Your task to perform on an android device: change text size in settings app Image 0: 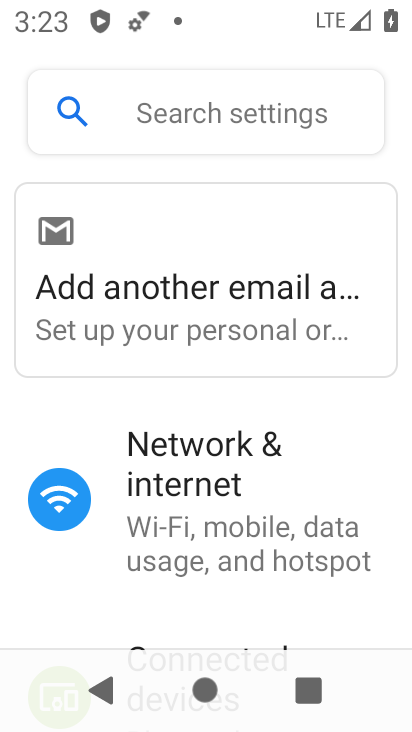
Step 0: drag from (227, 602) to (321, 164)
Your task to perform on an android device: change text size in settings app Image 1: 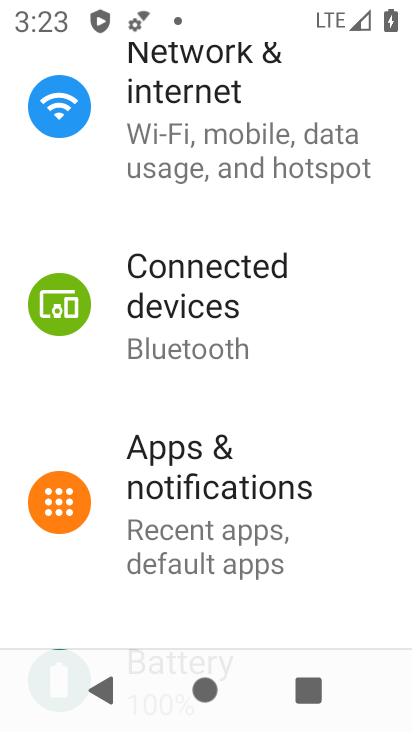
Step 1: drag from (106, 608) to (283, 168)
Your task to perform on an android device: change text size in settings app Image 2: 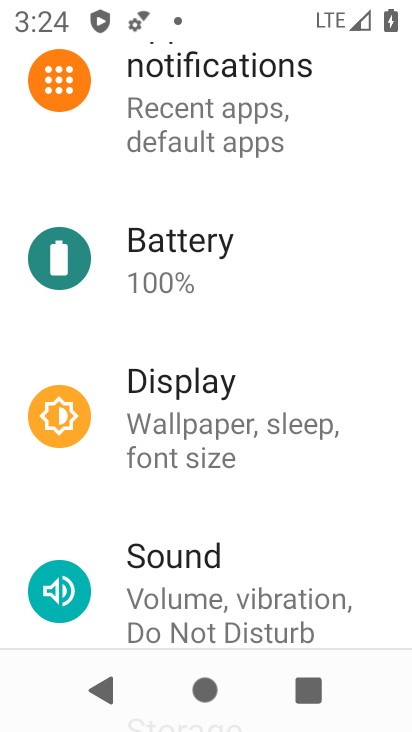
Step 2: click (246, 436)
Your task to perform on an android device: change text size in settings app Image 3: 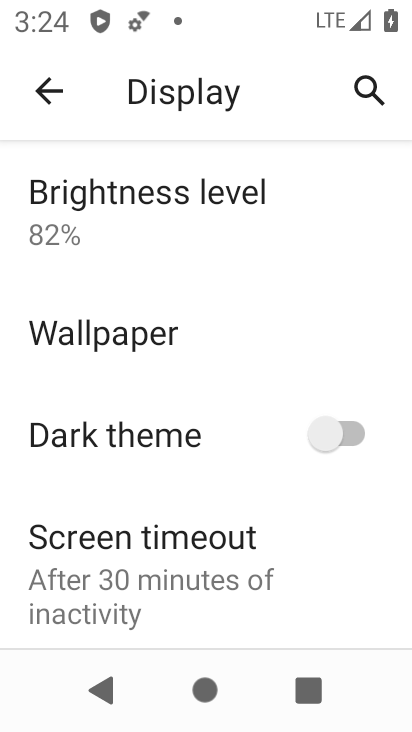
Step 3: drag from (123, 614) to (254, 122)
Your task to perform on an android device: change text size in settings app Image 4: 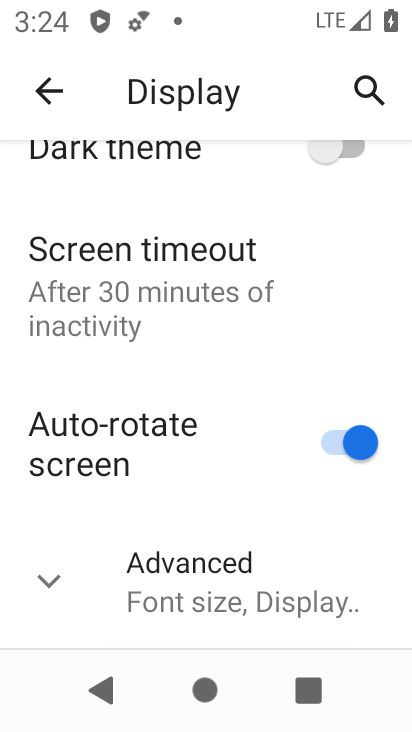
Step 4: click (203, 588)
Your task to perform on an android device: change text size in settings app Image 5: 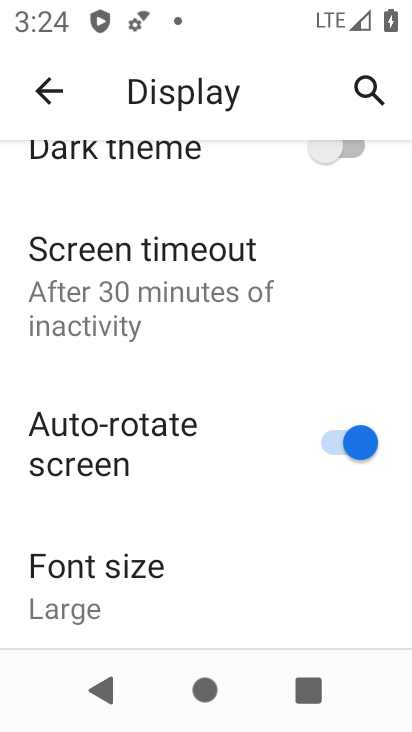
Step 5: click (132, 581)
Your task to perform on an android device: change text size in settings app Image 6: 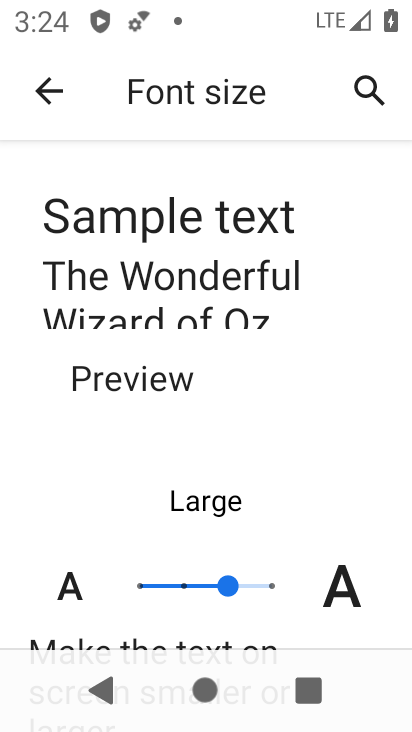
Step 6: task complete